Your task to perform on an android device: turn on the 12-hour format for clock Image 0: 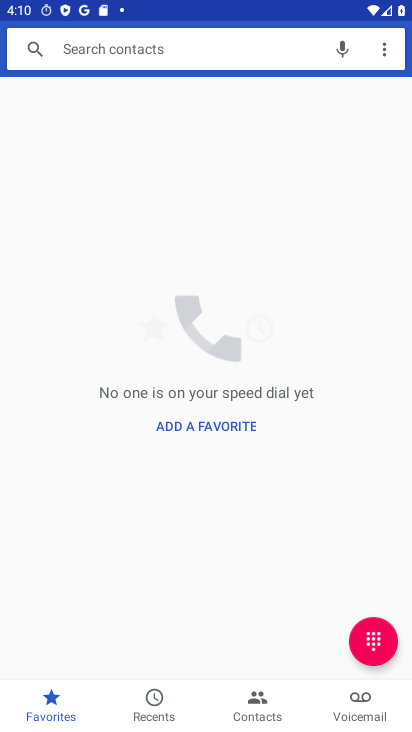
Step 0: press home button
Your task to perform on an android device: turn on the 12-hour format for clock Image 1: 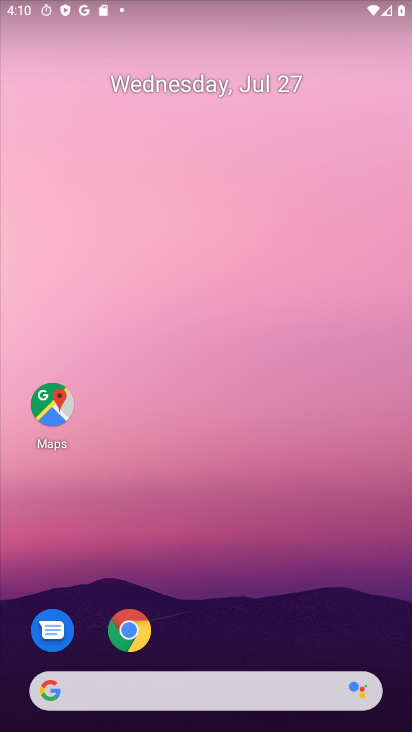
Step 1: drag from (226, 607) to (144, 0)
Your task to perform on an android device: turn on the 12-hour format for clock Image 2: 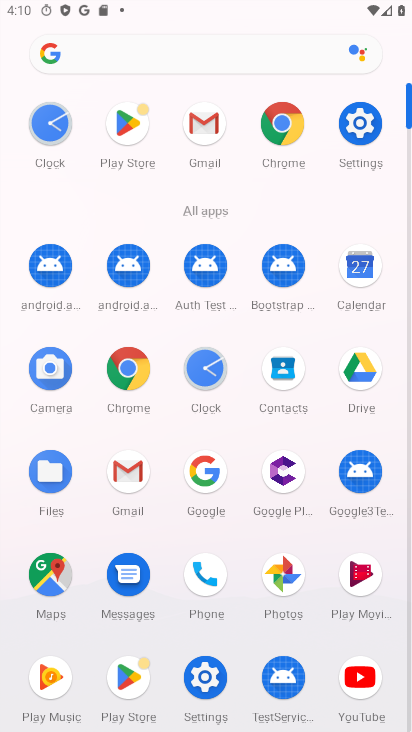
Step 2: click (202, 679)
Your task to perform on an android device: turn on the 12-hour format for clock Image 3: 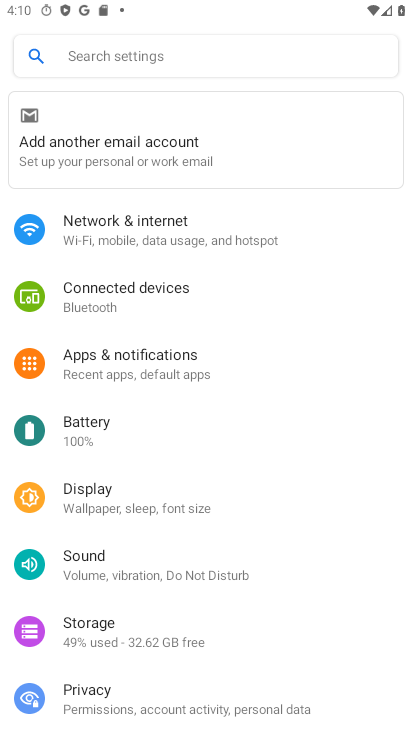
Step 3: drag from (160, 681) to (181, 391)
Your task to perform on an android device: turn on the 12-hour format for clock Image 4: 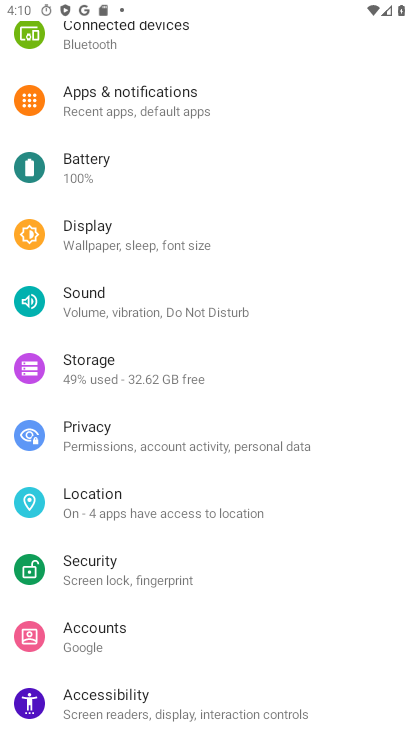
Step 4: drag from (163, 617) to (194, 257)
Your task to perform on an android device: turn on the 12-hour format for clock Image 5: 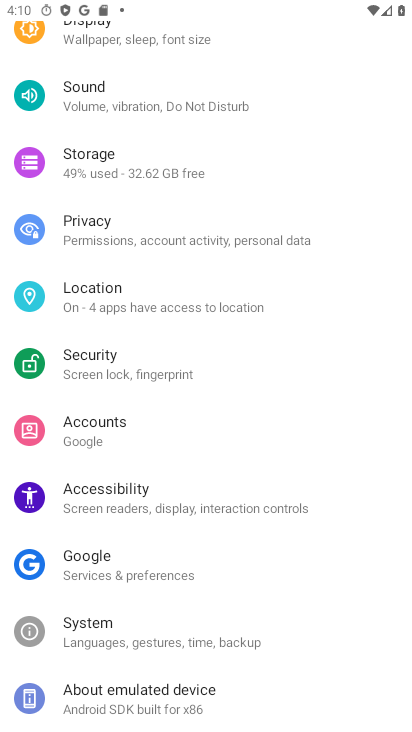
Step 5: click (120, 634)
Your task to perform on an android device: turn on the 12-hour format for clock Image 6: 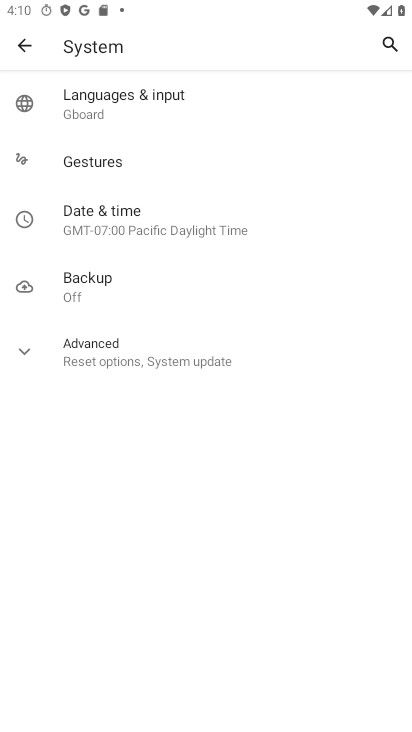
Step 6: click (165, 222)
Your task to perform on an android device: turn on the 12-hour format for clock Image 7: 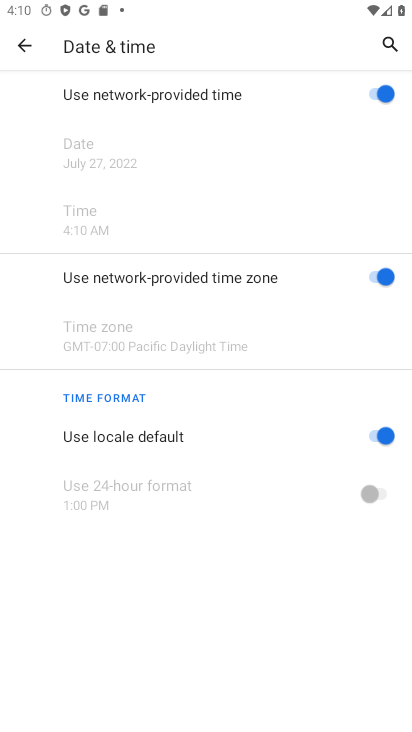
Step 7: task complete